Your task to perform on an android device: Is it going to rain this weekend? Image 0: 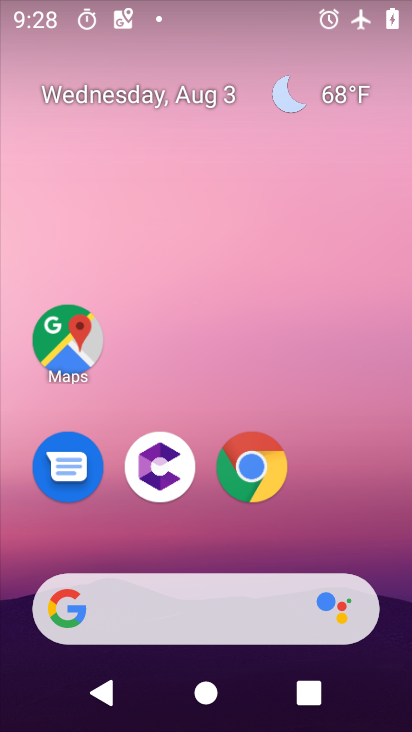
Step 0: drag from (352, 465) to (312, 92)
Your task to perform on an android device: Is it going to rain this weekend? Image 1: 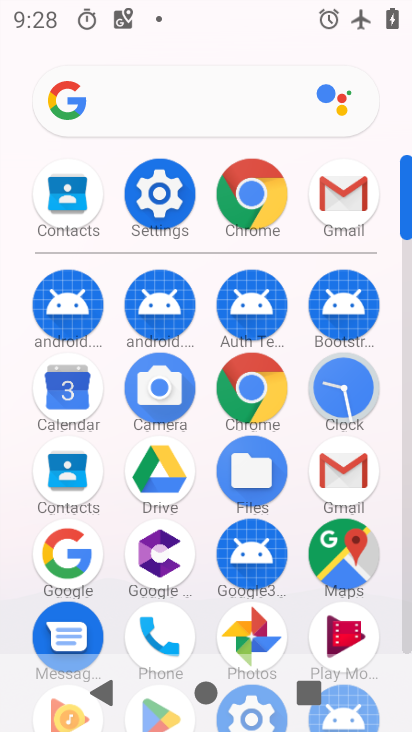
Step 1: click (68, 390)
Your task to perform on an android device: Is it going to rain this weekend? Image 2: 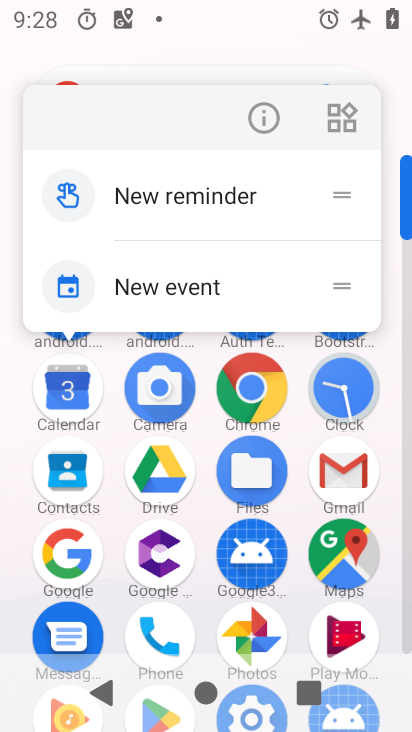
Step 2: click (66, 386)
Your task to perform on an android device: Is it going to rain this weekend? Image 3: 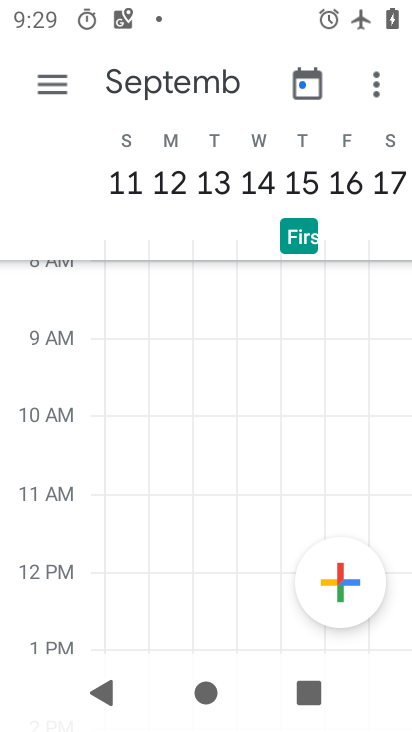
Step 3: click (184, 76)
Your task to perform on an android device: Is it going to rain this weekend? Image 4: 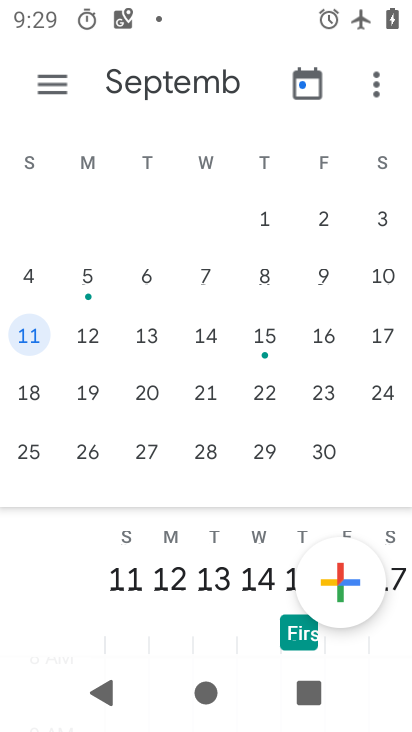
Step 4: drag from (43, 361) to (404, 367)
Your task to perform on an android device: Is it going to rain this weekend? Image 5: 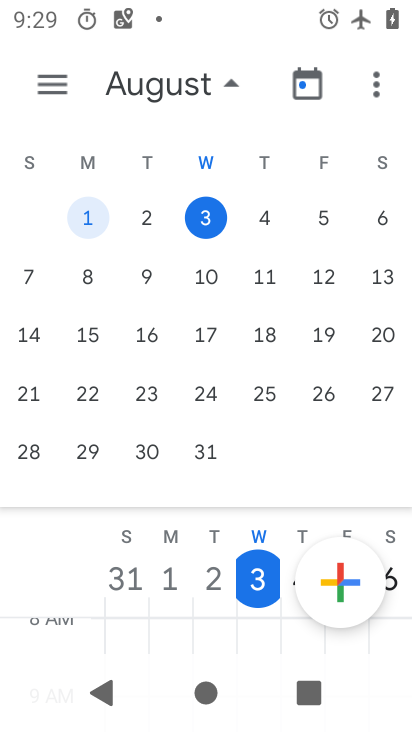
Step 5: click (384, 211)
Your task to perform on an android device: Is it going to rain this weekend? Image 6: 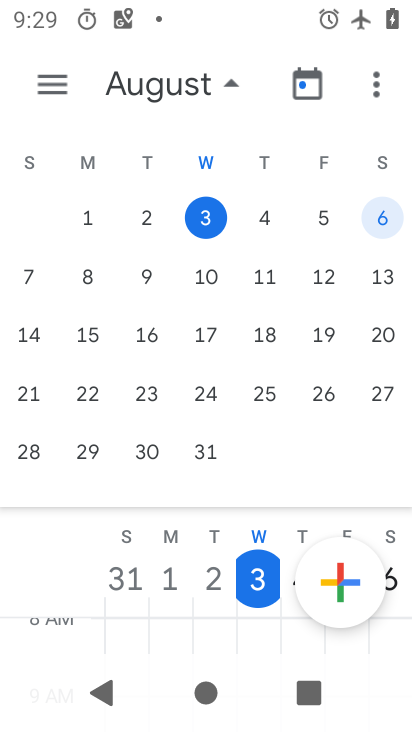
Step 6: press home button
Your task to perform on an android device: Is it going to rain this weekend? Image 7: 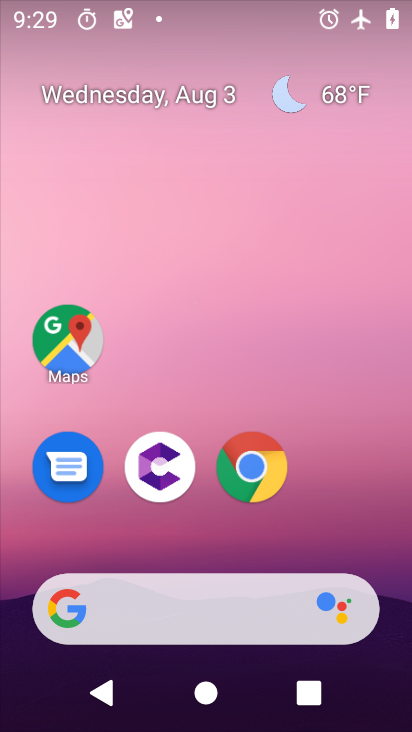
Step 7: click (350, 106)
Your task to perform on an android device: Is it going to rain this weekend? Image 8: 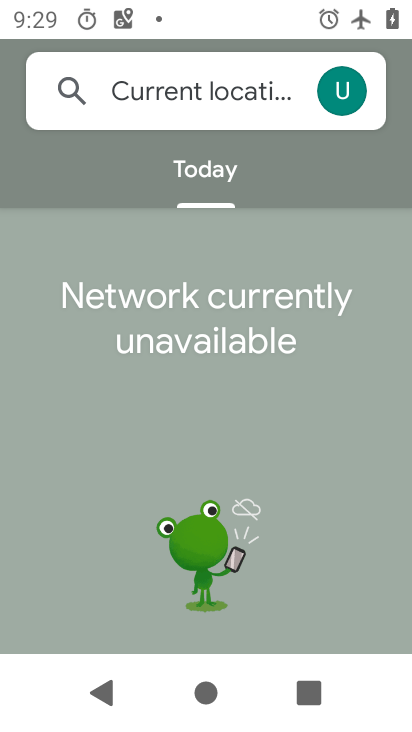
Step 8: task complete